Your task to perform on an android device: open a bookmark in the chrome app Image 0: 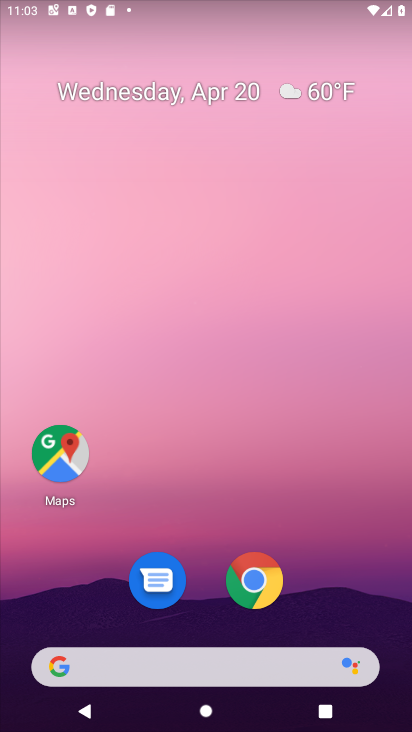
Step 0: click (255, 607)
Your task to perform on an android device: open a bookmark in the chrome app Image 1: 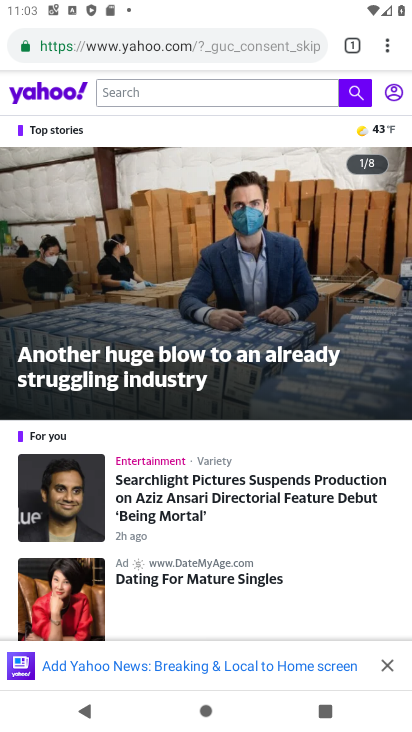
Step 1: drag from (394, 46) to (228, 233)
Your task to perform on an android device: open a bookmark in the chrome app Image 2: 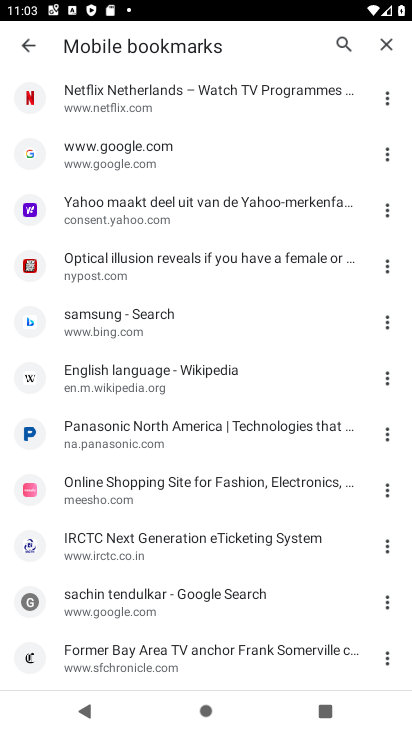
Step 2: click (160, 265)
Your task to perform on an android device: open a bookmark in the chrome app Image 3: 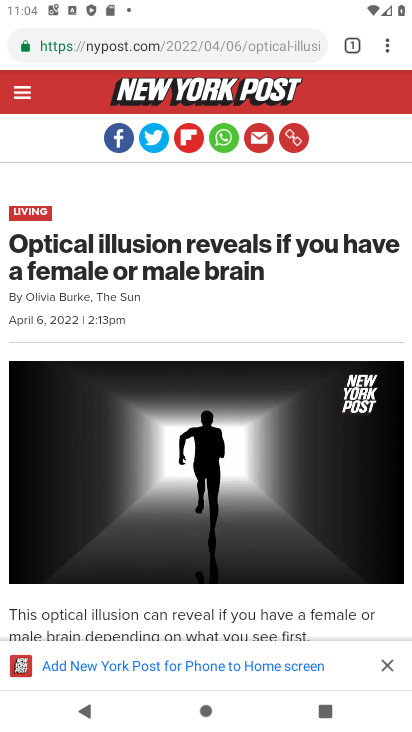
Step 3: task complete